Your task to perform on an android device: set an alarm Image 0: 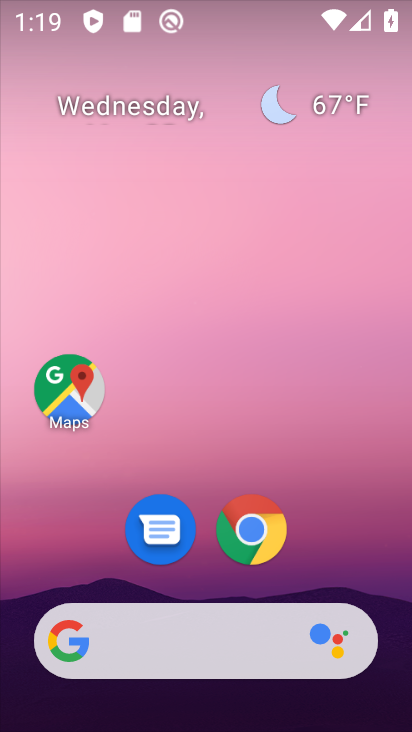
Step 0: drag from (341, 533) to (227, 166)
Your task to perform on an android device: set an alarm Image 1: 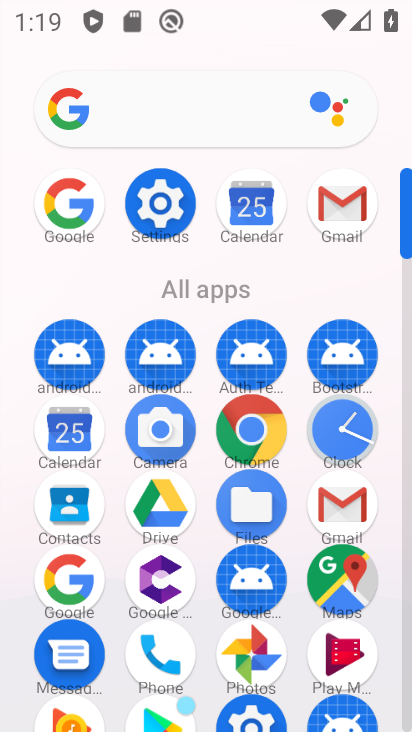
Step 1: drag from (204, 487) to (224, 304)
Your task to perform on an android device: set an alarm Image 2: 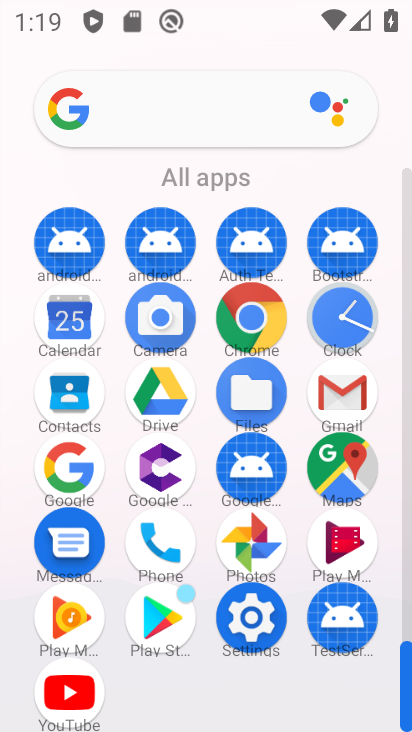
Step 2: click (342, 312)
Your task to perform on an android device: set an alarm Image 3: 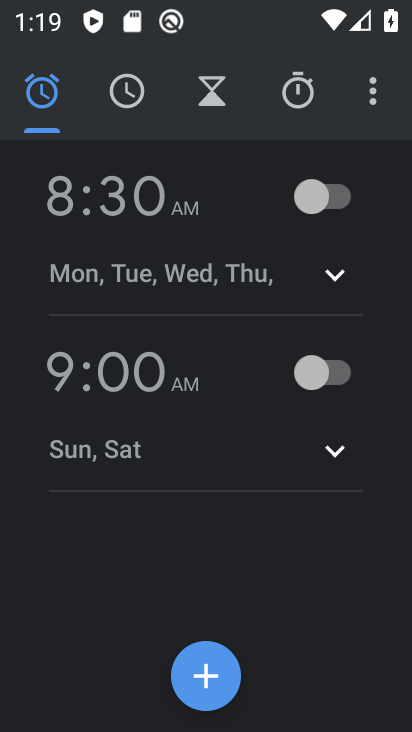
Step 3: click (202, 670)
Your task to perform on an android device: set an alarm Image 4: 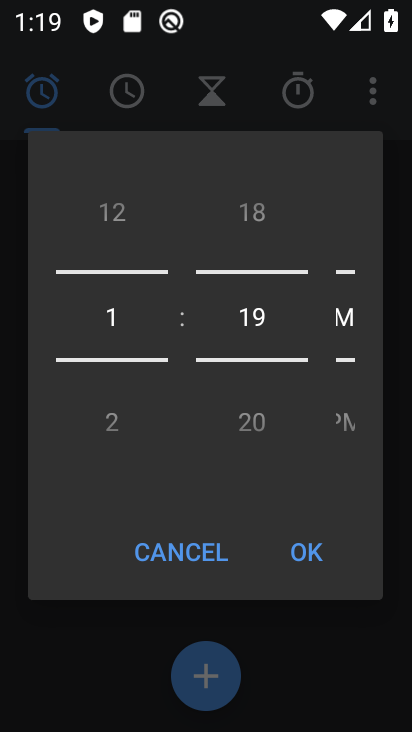
Step 4: drag from (108, 230) to (102, 385)
Your task to perform on an android device: set an alarm Image 5: 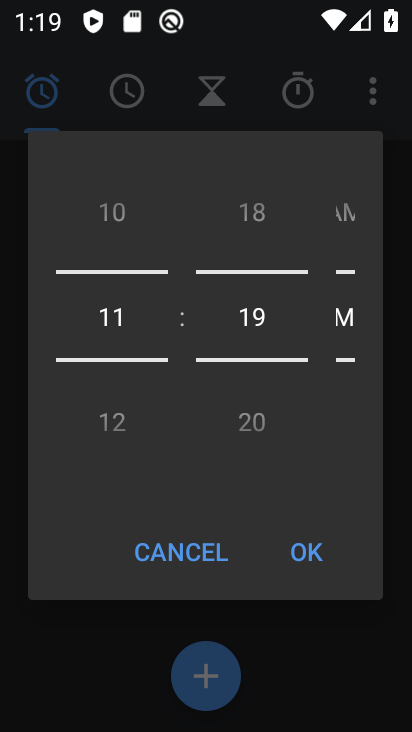
Step 5: drag from (128, 221) to (126, 407)
Your task to perform on an android device: set an alarm Image 6: 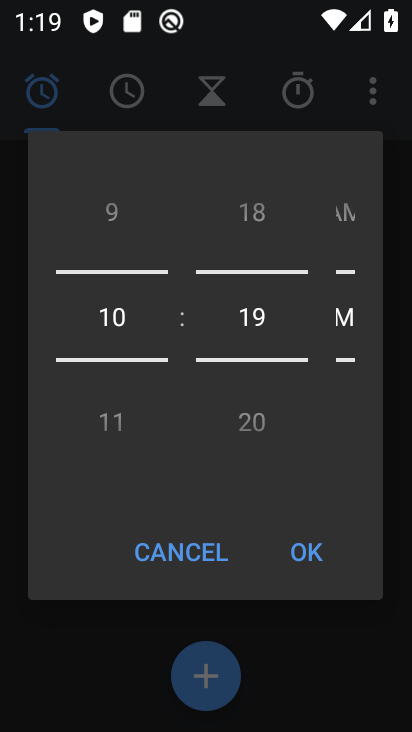
Step 6: drag from (269, 226) to (259, 388)
Your task to perform on an android device: set an alarm Image 7: 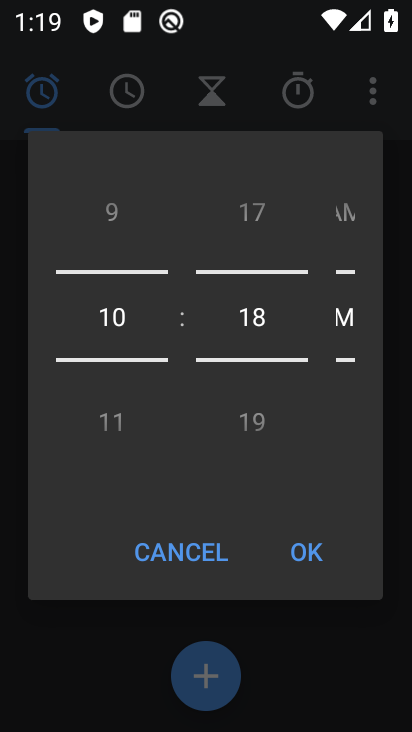
Step 7: drag from (256, 213) to (289, 364)
Your task to perform on an android device: set an alarm Image 8: 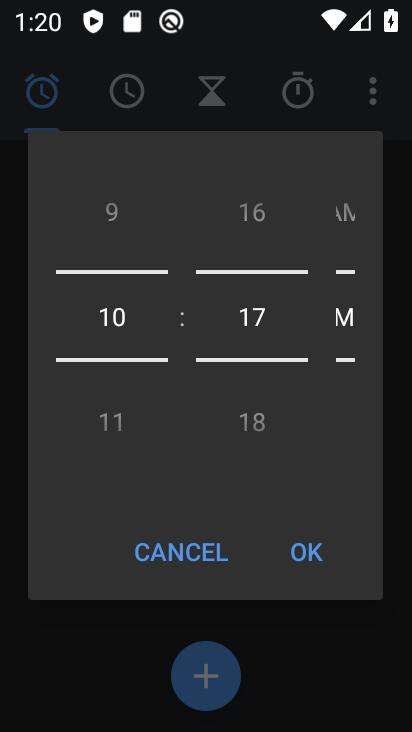
Step 8: drag from (340, 216) to (373, 379)
Your task to perform on an android device: set an alarm Image 9: 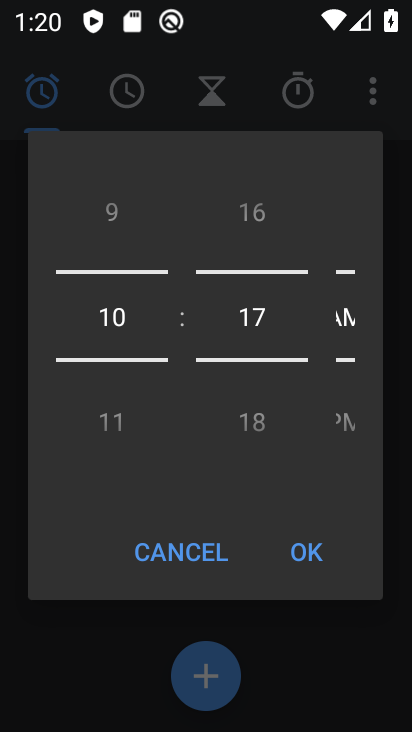
Step 9: click (317, 545)
Your task to perform on an android device: set an alarm Image 10: 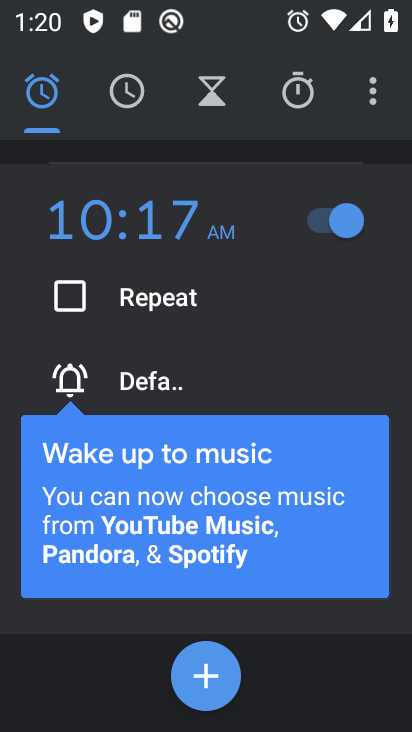
Step 10: click (271, 179)
Your task to perform on an android device: set an alarm Image 11: 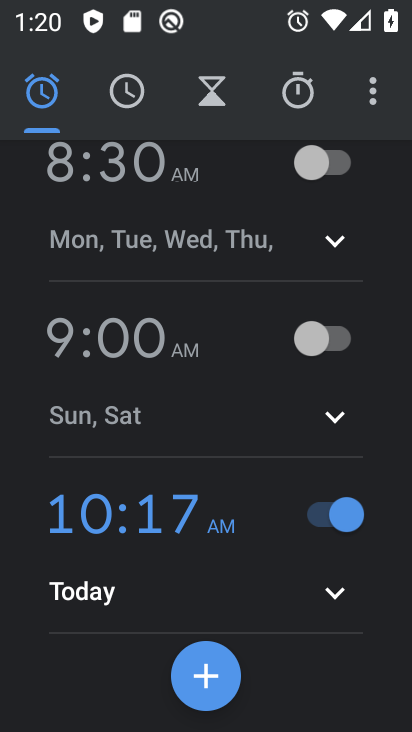
Step 11: task complete